Your task to perform on an android device: Open maps Image 0: 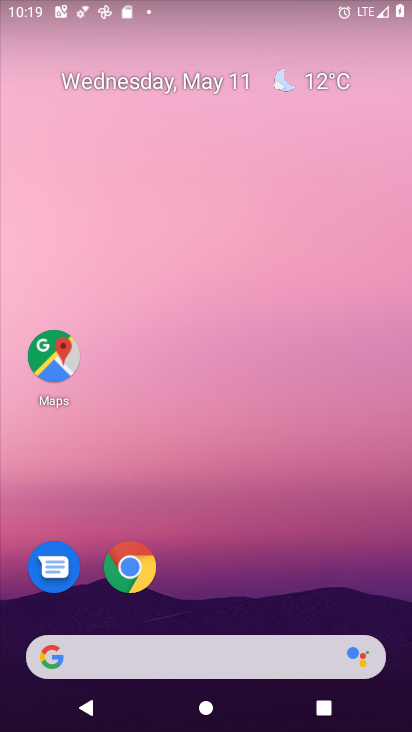
Step 0: click (52, 354)
Your task to perform on an android device: Open maps Image 1: 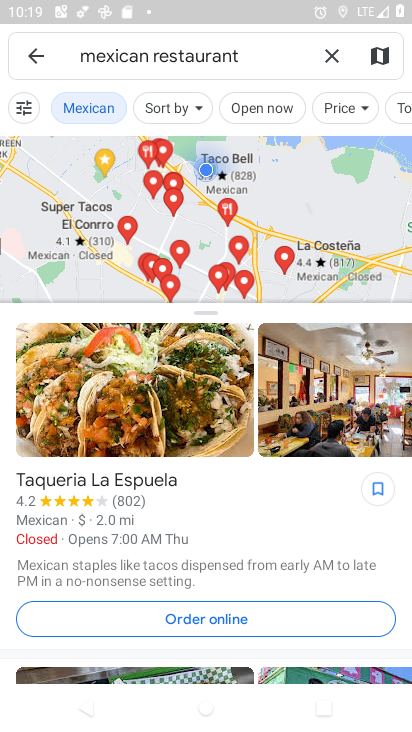
Step 1: task complete